Your task to perform on an android device: Open the calendar and show me this week's events? Image 0: 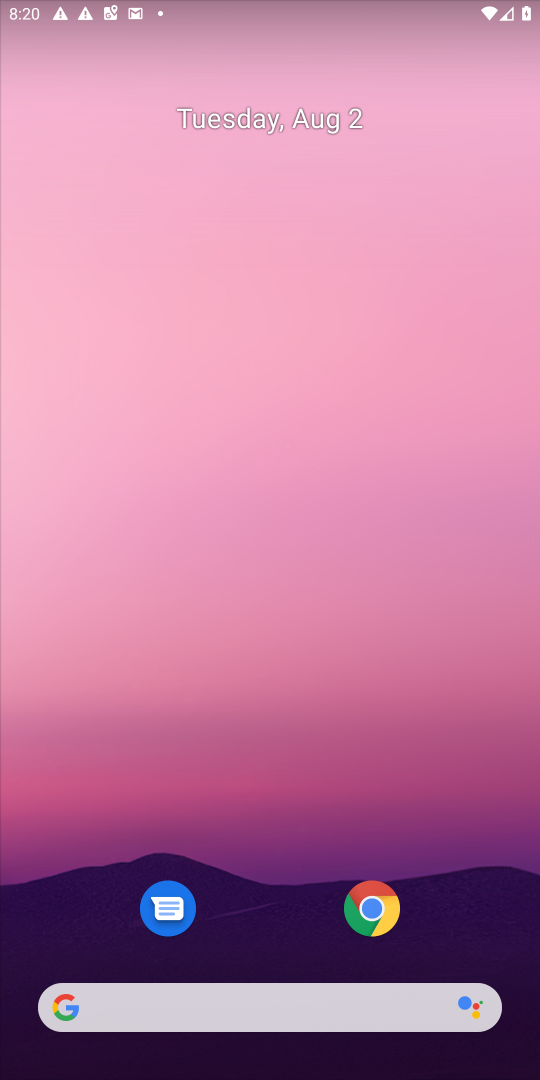
Step 0: drag from (300, 538) to (327, 204)
Your task to perform on an android device: Open the calendar and show me this week's events? Image 1: 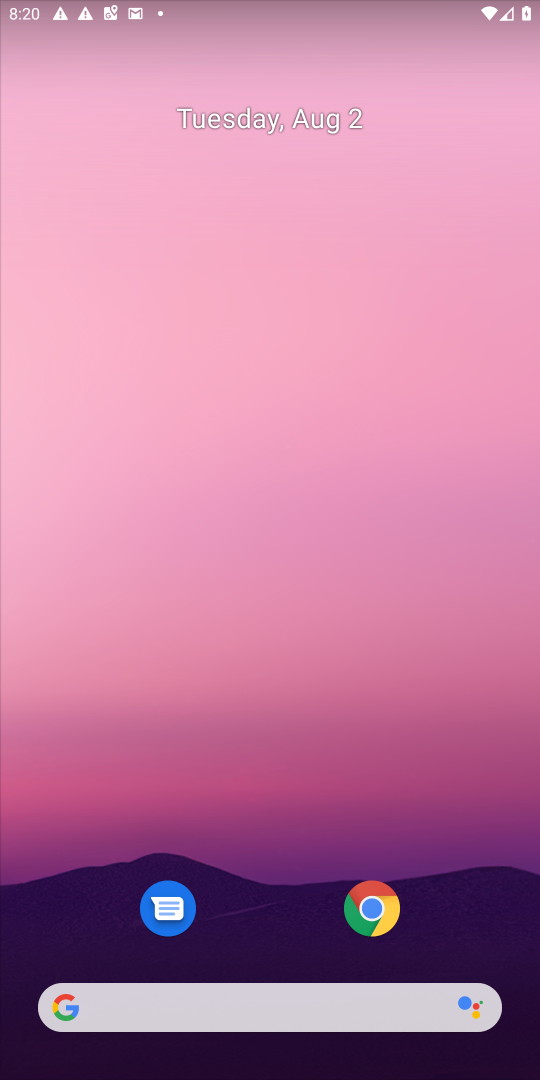
Step 1: drag from (232, 972) to (359, 2)
Your task to perform on an android device: Open the calendar and show me this week's events? Image 2: 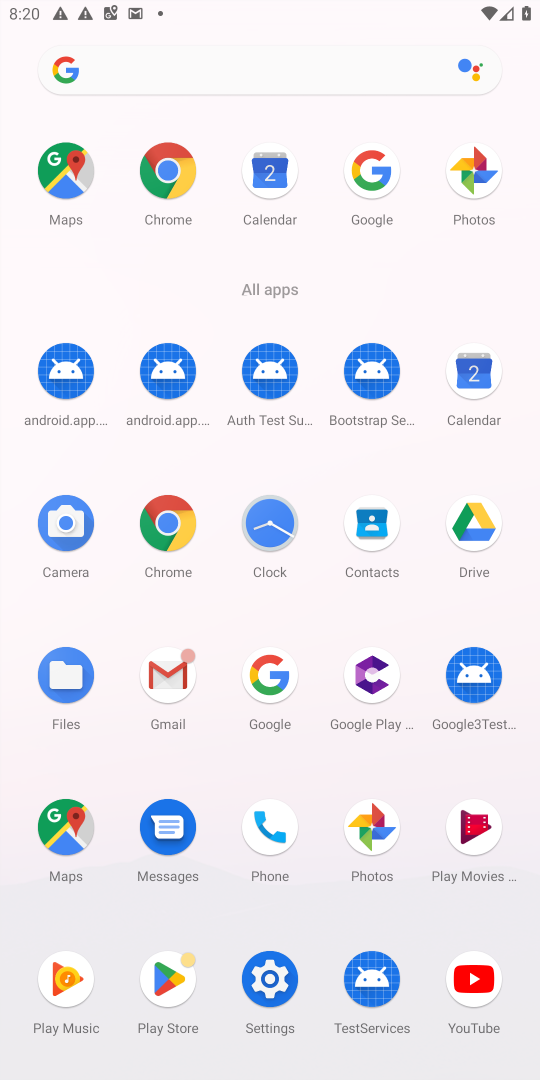
Step 2: click (471, 379)
Your task to perform on an android device: Open the calendar and show me this week's events? Image 3: 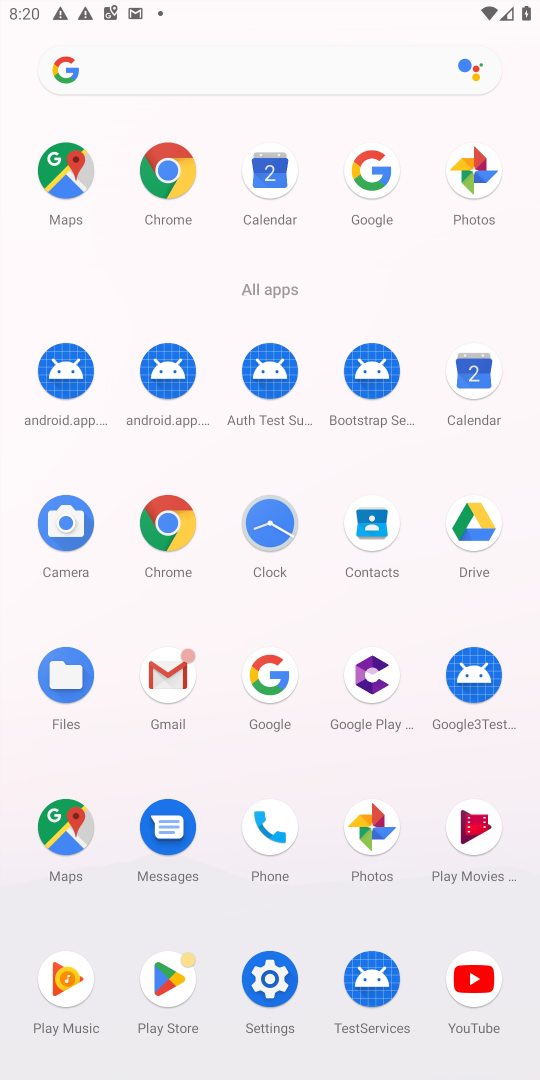
Step 3: click (468, 349)
Your task to perform on an android device: Open the calendar and show me this week's events? Image 4: 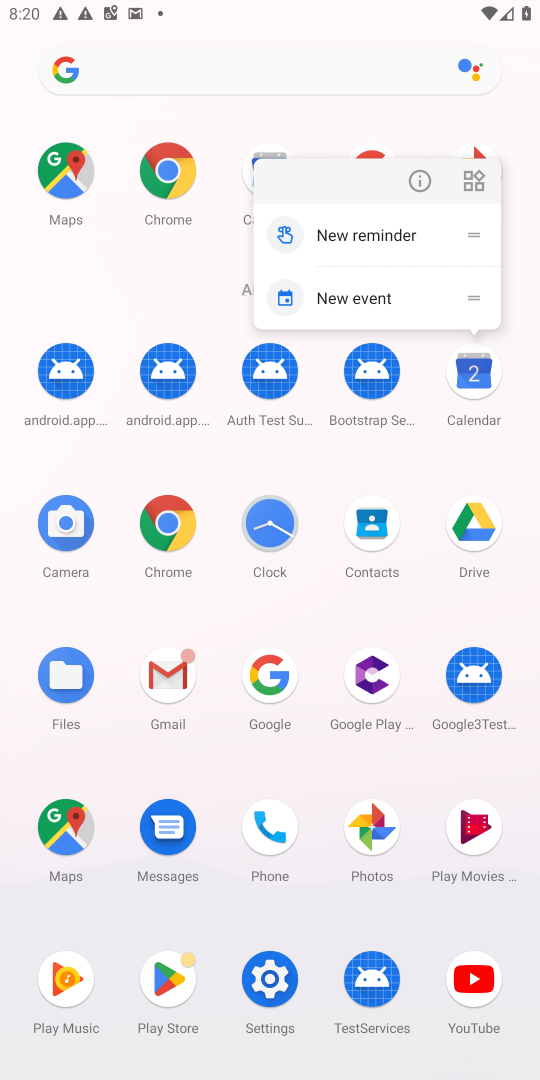
Step 4: click (476, 386)
Your task to perform on an android device: Open the calendar and show me this week's events? Image 5: 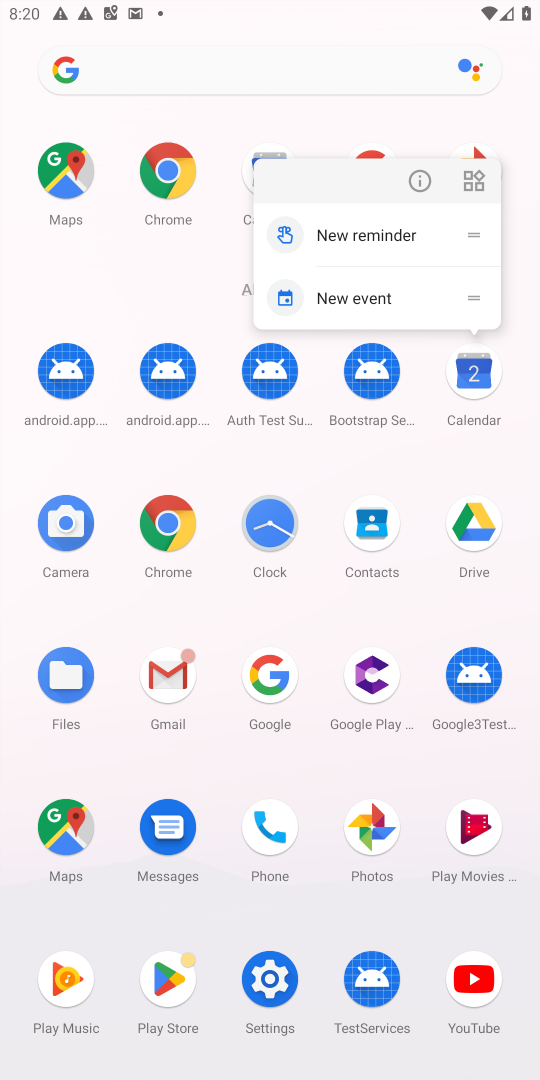
Step 5: click (443, 386)
Your task to perform on an android device: Open the calendar and show me this week's events? Image 6: 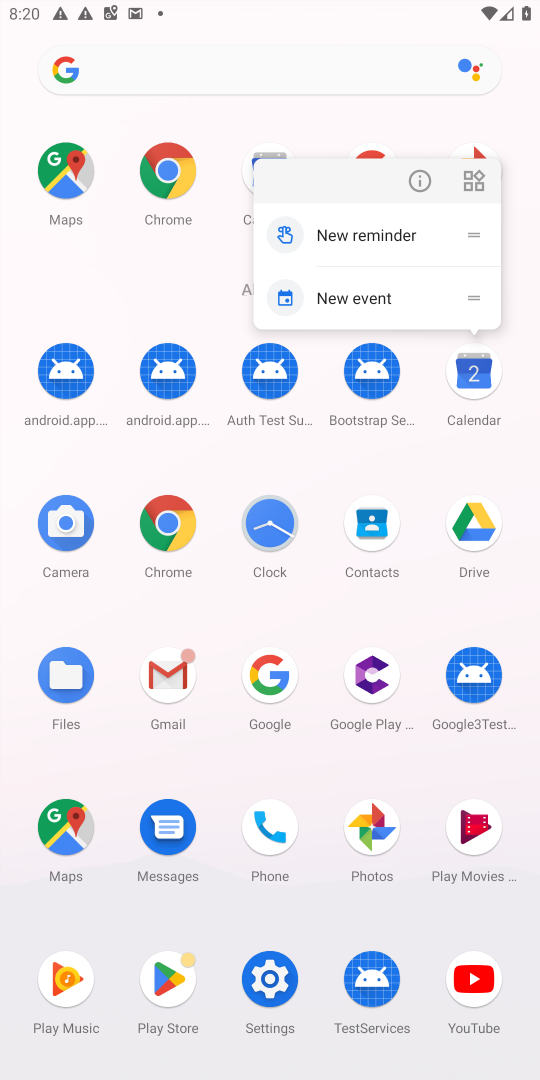
Step 6: click (474, 396)
Your task to perform on an android device: Open the calendar and show me this week's events? Image 7: 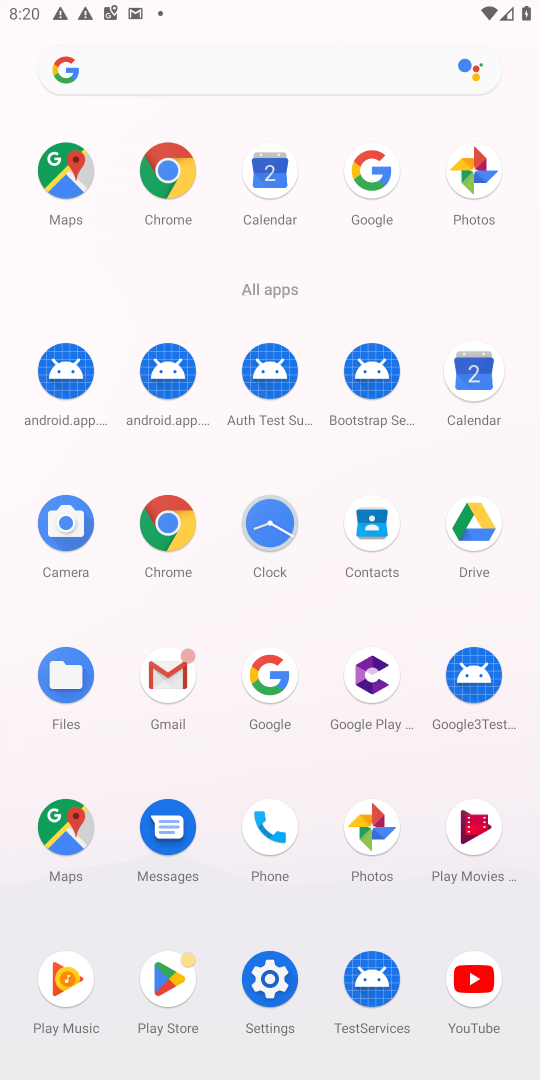
Step 7: click (474, 396)
Your task to perform on an android device: Open the calendar and show me this week's events? Image 8: 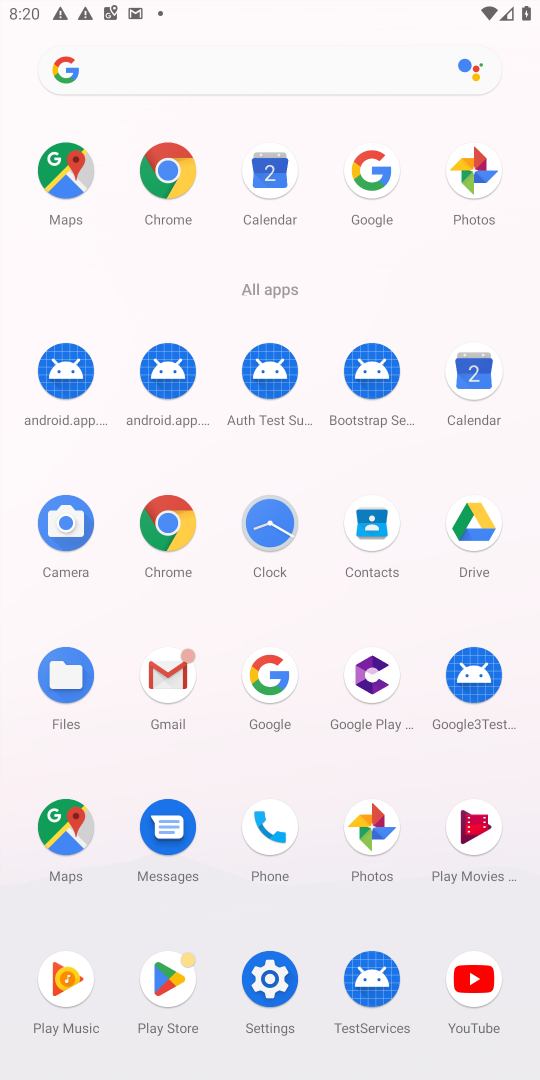
Step 8: click (474, 396)
Your task to perform on an android device: Open the calendar and show me this week's events? Image 9: 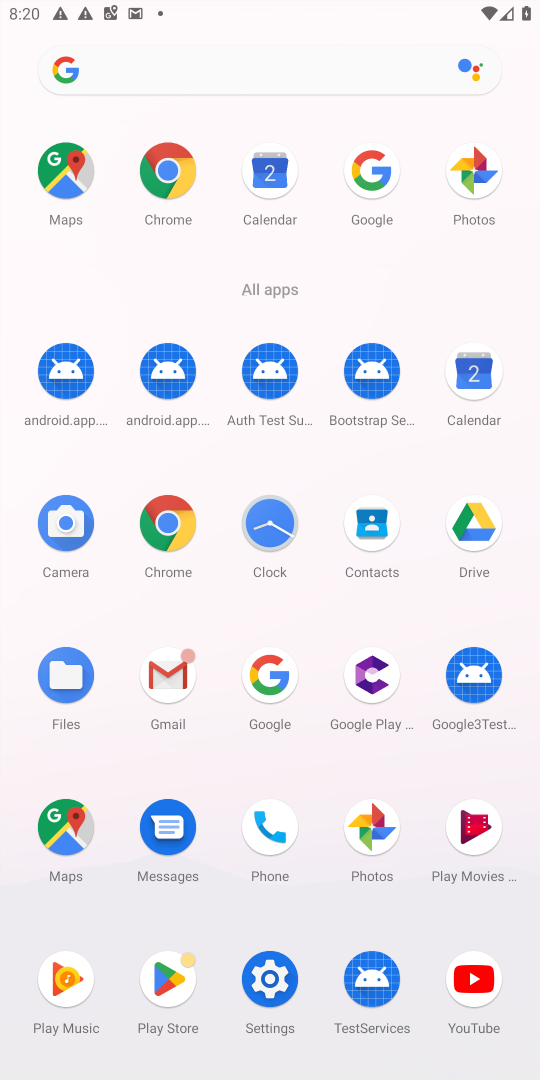
Step 9: click (474, 396)
Your task to perform on an android device: Open the calendar and show me this week's events? Image 10: 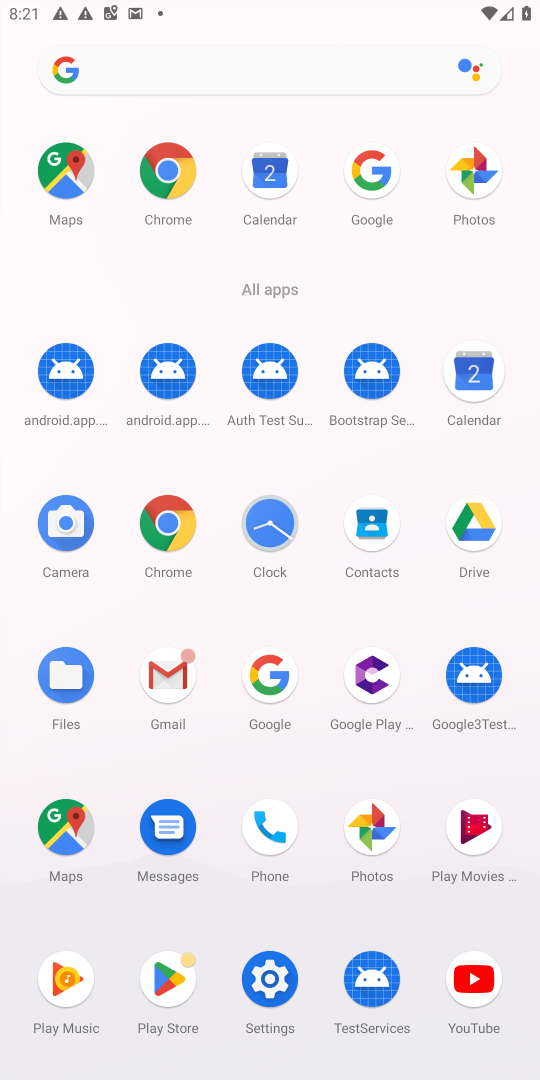
Step 10: click (474, 396)
Your task to perform on an android device: Open the calendar and show me this week's events? Image 11: 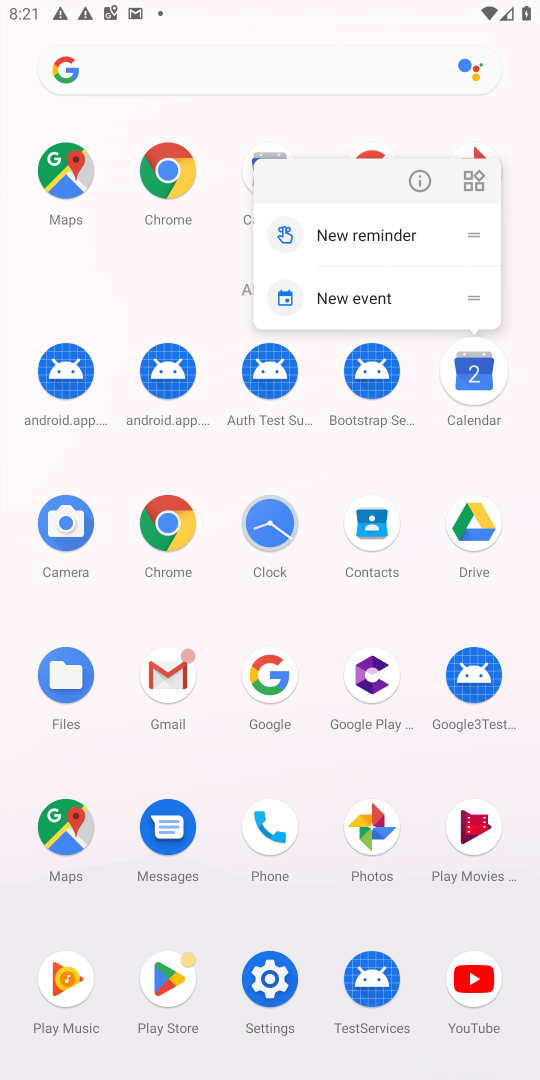
Step 11: click (474, 396)
Your task to perform on an android device: Open the calendar and show me this week's events? Image 12: 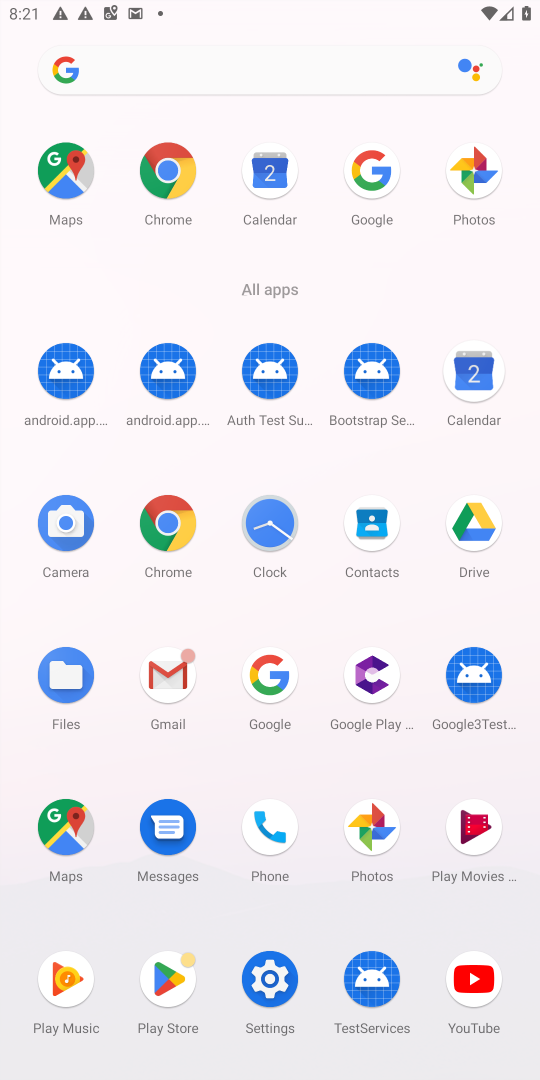
Step 12: click (474, 396)
Your task to perform on an android device: Open the calendar and show me this week's events? Image 13: 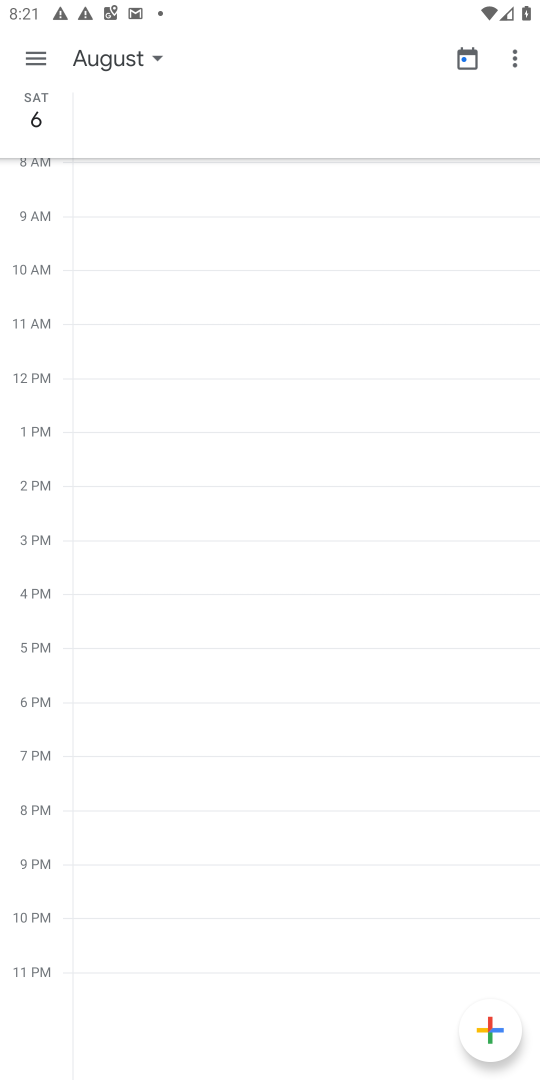
Step 13: click (148, 50)
Your task to perform on an android device: Open the calendar and show me this week's events? Image 14: 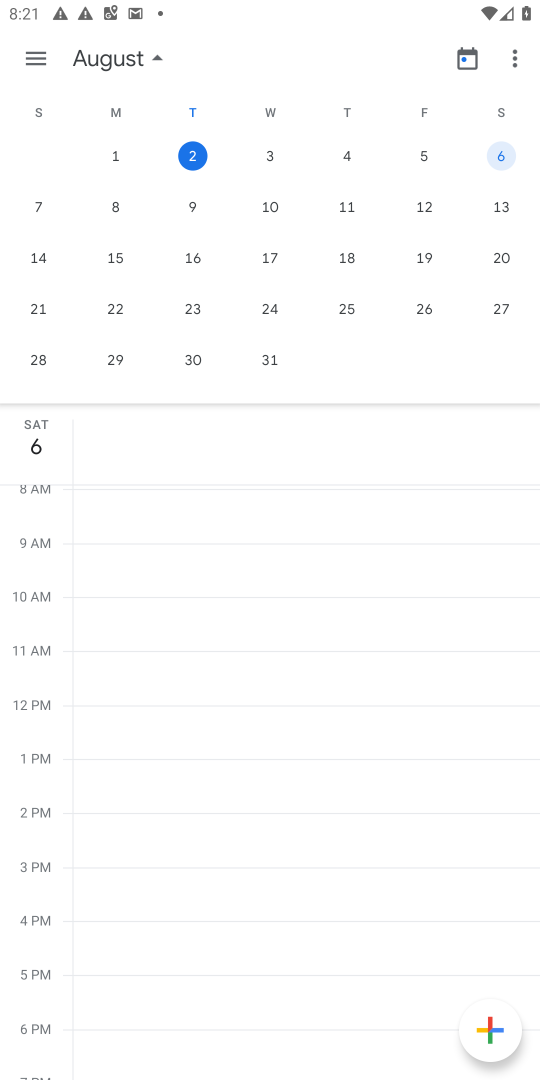
Step 14: click (24, 48)
Your task to perform on an android device: Open the calendar and show me this week's events? Image 15: 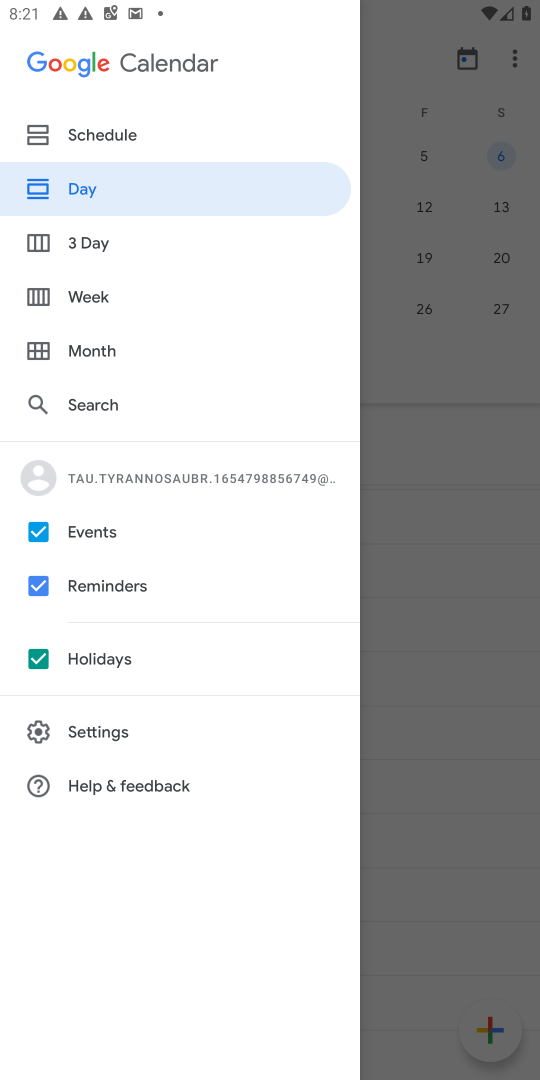
Step 15: click (118, 136)
Your task to perform on an android device: Open the calendar and show me this week's events? Image 16: 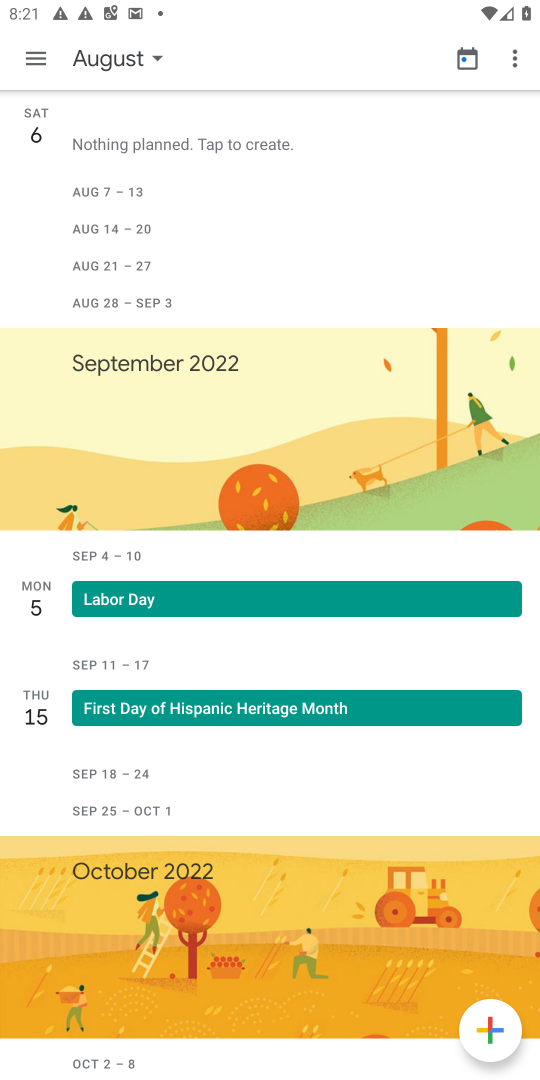
Step 16: task complete